Your task to perform on an android device: Open eBay Image 0: 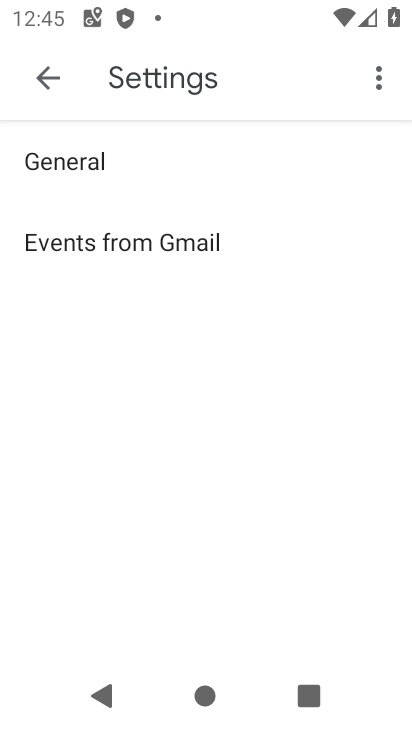
Step 0: press home button
Your task to perform on an android device: Open eBay Image 1: 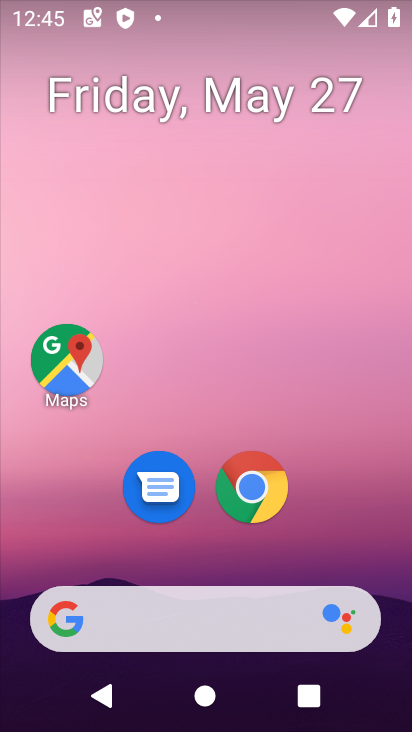
Step 1: drag from (182, 535) to (207, 80)
Your task to perform on an android device: Open eBay Image 2: 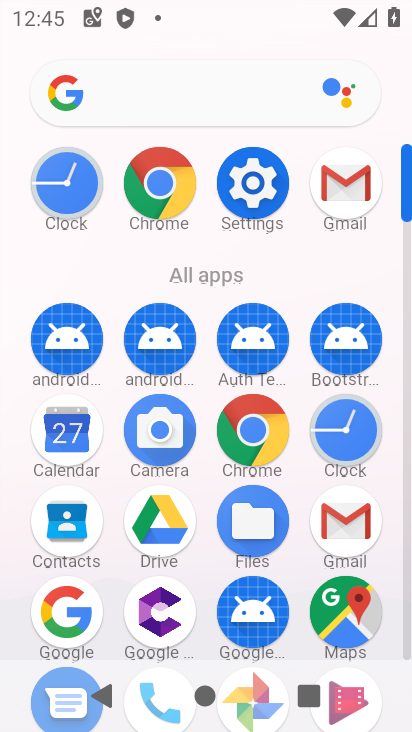
Step 2: click (55, 604)
Your task to perform on an android device: Open eBay Image 3: 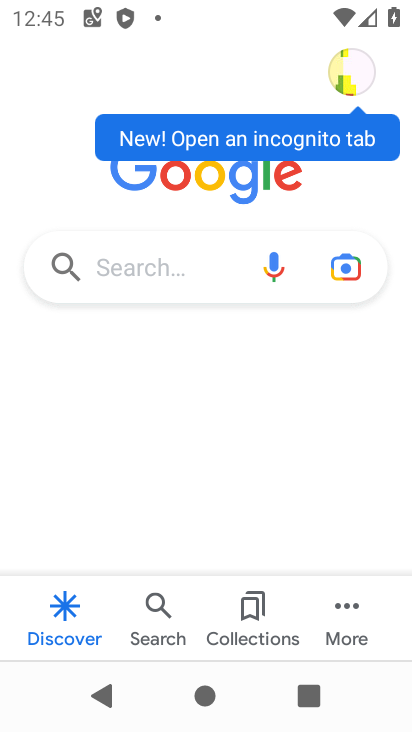
Step 3: click (147, 265)
Your task to perform on an android device: Open eBay Image 4: 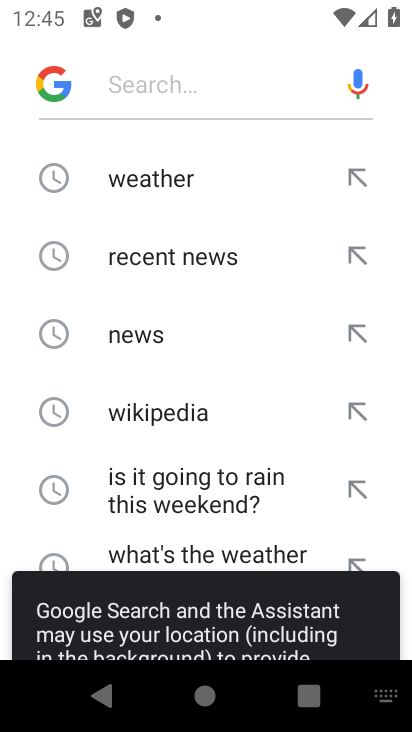
Step 4: drag from (220, 407) to (233, 53)
Your task to perform on an android device: Open eBay Image 5: 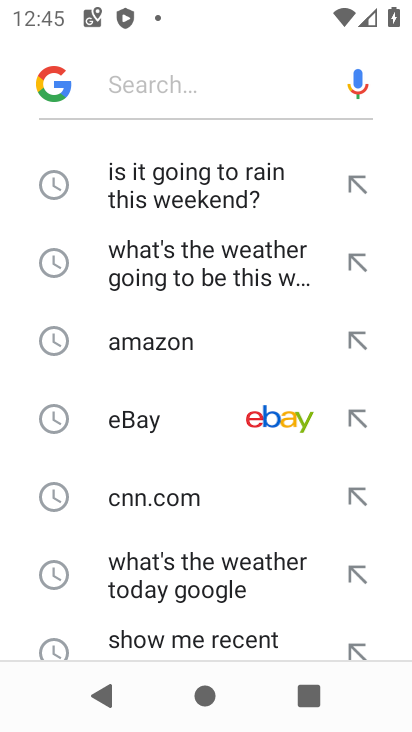
Step 5: click (173, 414)
Your task to perform on an android device: Open eBay Image 6: 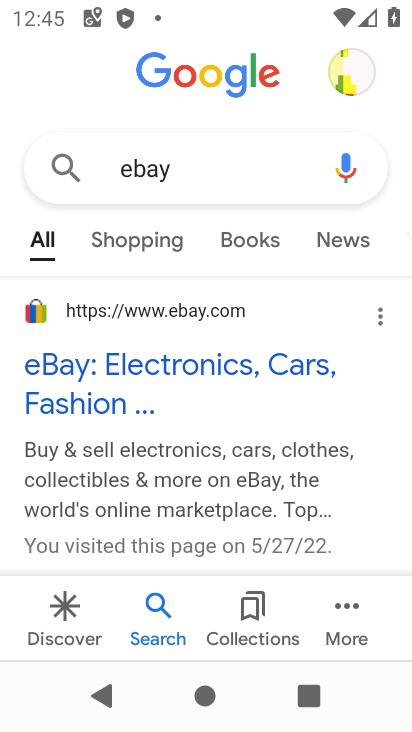
Step 6: task complete